Your task to perform on an android device: Open privacy settings Image 0: 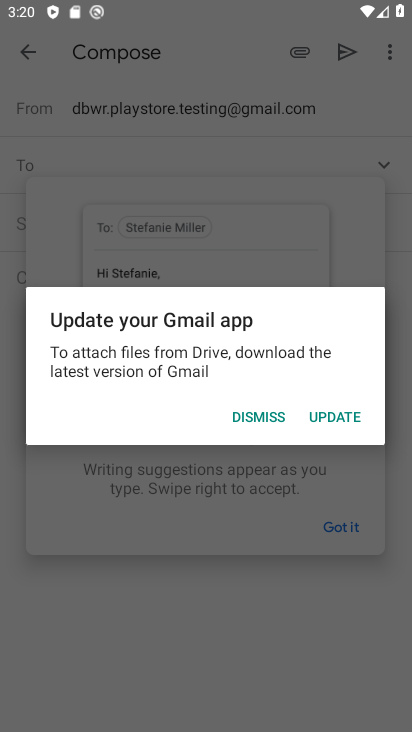
Step 0: press back button
Your task to perform on an android device: Open privacy settings Image 1: 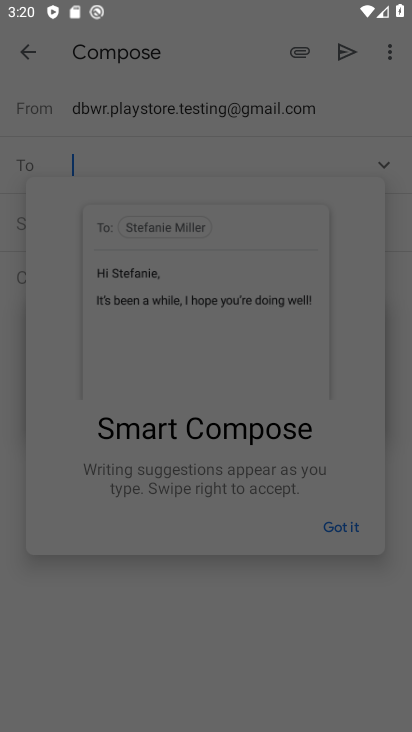
Step 1: press home button
Your task to perform on an android device: Open privacy settings Image 2: 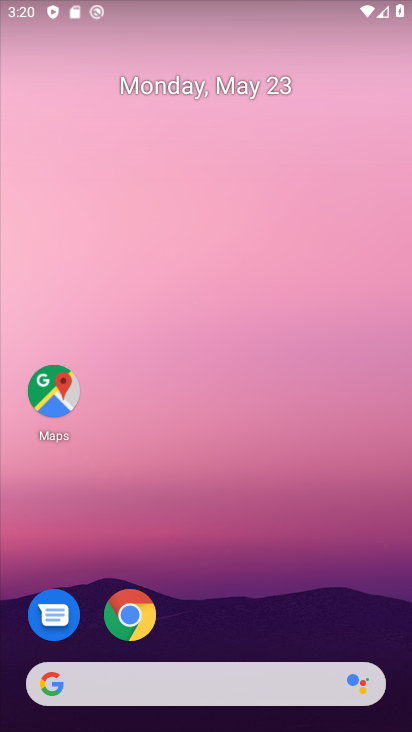
Step 2: drag from (247, 473) to (245, 44)
Your task to perform on an android device: Open privacy settings Image 3: 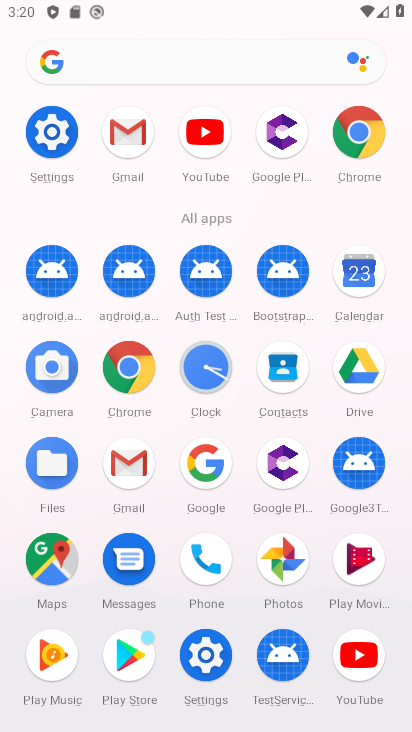
Step 3: click (128, 365)
Your task to perform on an android device: Open privacy settings Image 4: 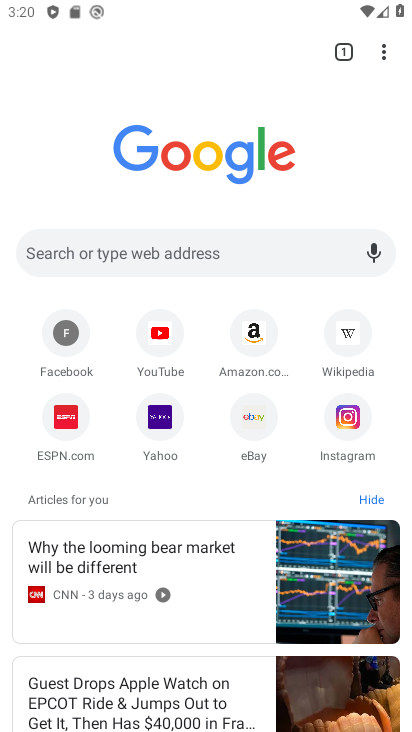
Step 4: drag from (382, 49) to (207, 432)
Your task to perform on an android device: Open privacy settings Image 5: 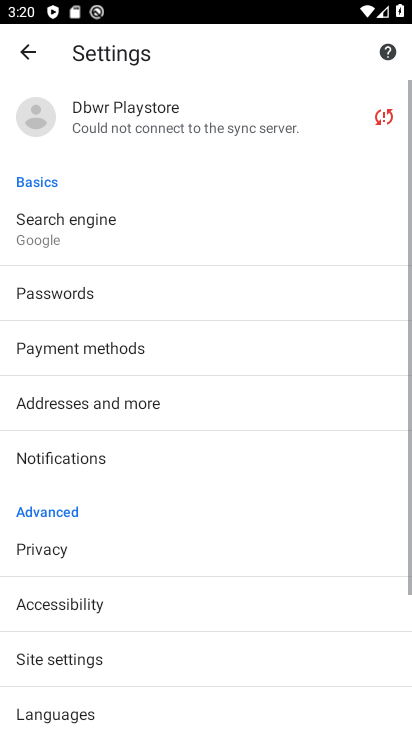
Step 5: drag from (208, 605) to (229, 233)
Your task to perform on an android device: Open privacy settings Image 6: 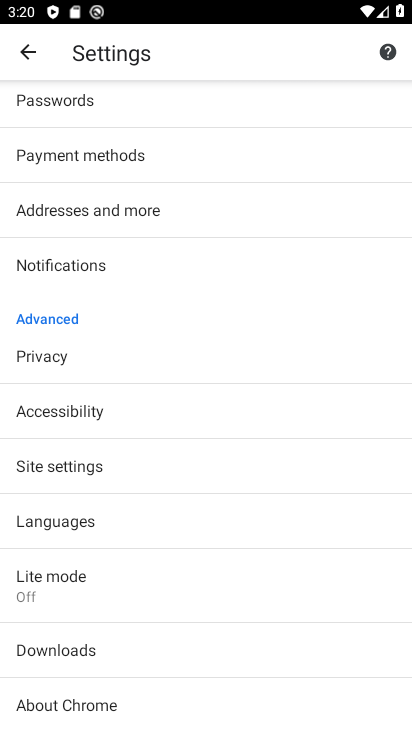
Step 6: click (79, 358)
Your task to perform on an android device: Open privacy settings Image 7: 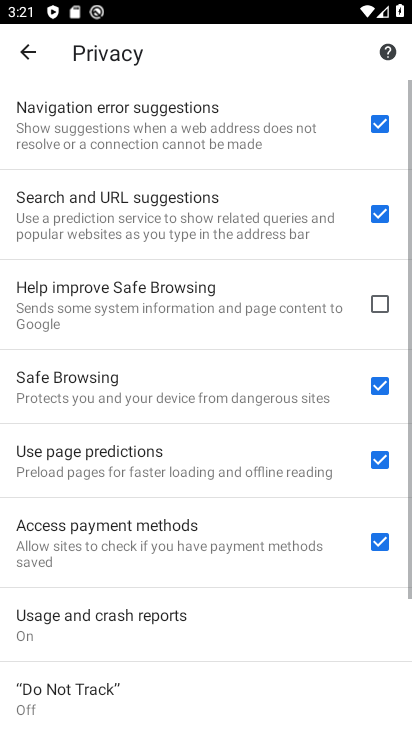
Step 7: task complete